Your task to perform on an android device: visit the assistant section in the google photos Image 0: 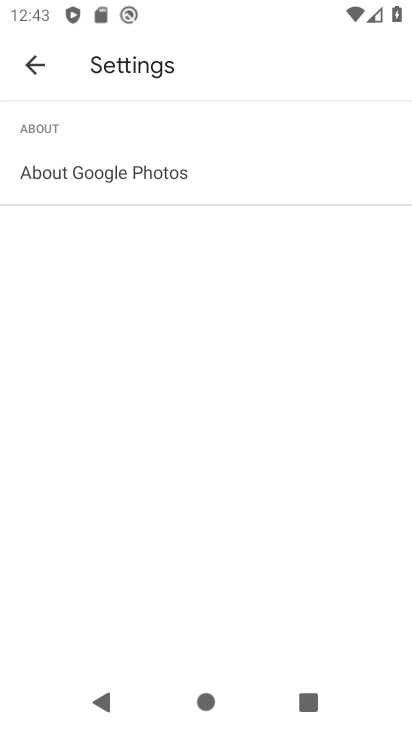
Step 0: press home button
Your task to perform on an android device: visit the assistant section in the google photos Image 1: 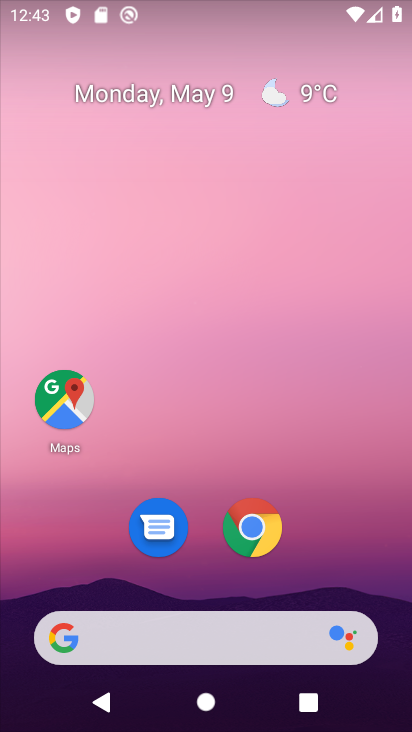
Step 1: drag from (250, 258) to (280, 42)
Your task to perform on an android device: visit the assistant section in the google photos Image 2: 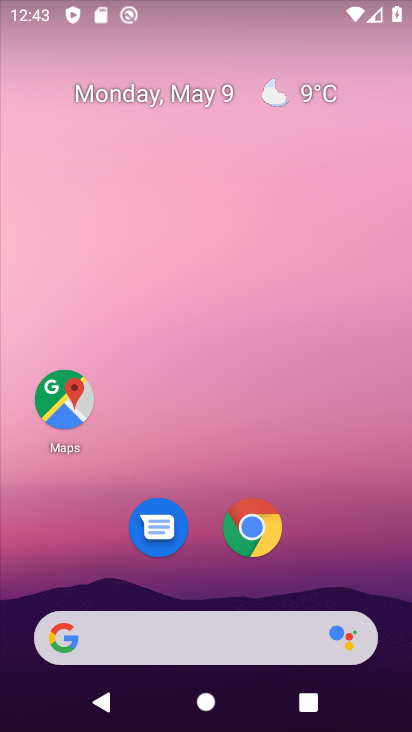
Step 2: drag from (234, 576) to (297, 71)
Your task to perform on an android device: visit the assistant section in the google photos Image 3: 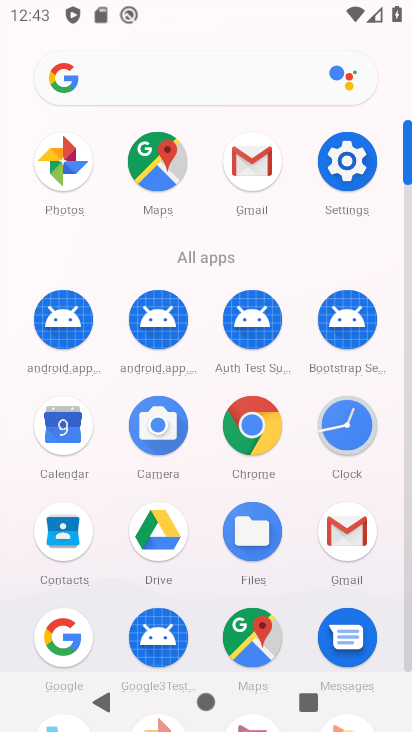
Step 3: drag from (194, 573) to (225, 333)
Your task to perform on an android device: visit the assistant section in the google photos Image 4: 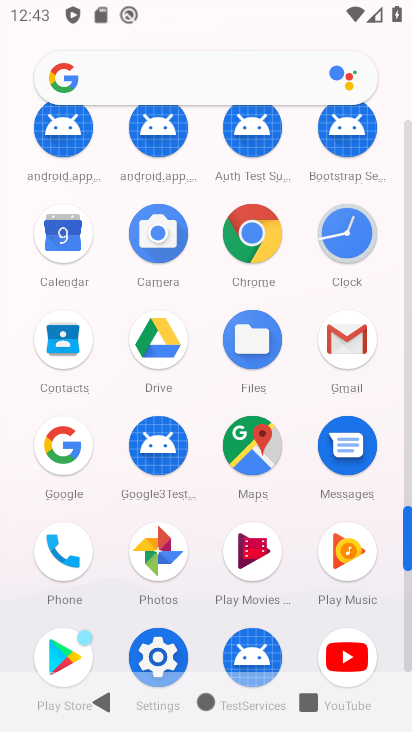
Step 4: click (161, 558)
Your task to perform on an android device: visit the assistant section in the google photos Image 5: 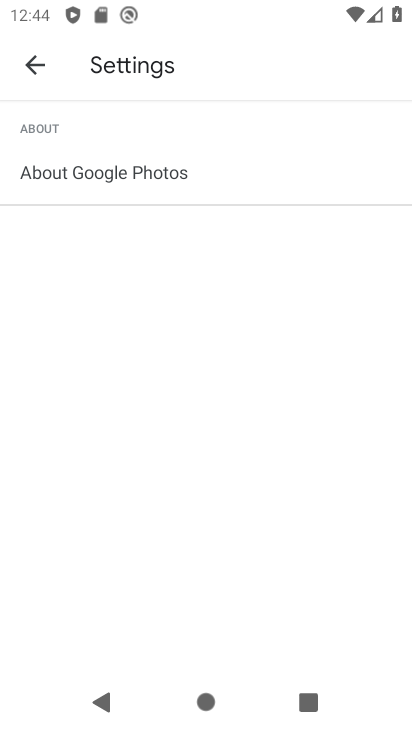
Step 5: click (33, 63)
Your task to perform on an android device: visit the assistant section in the google photos Image 6: 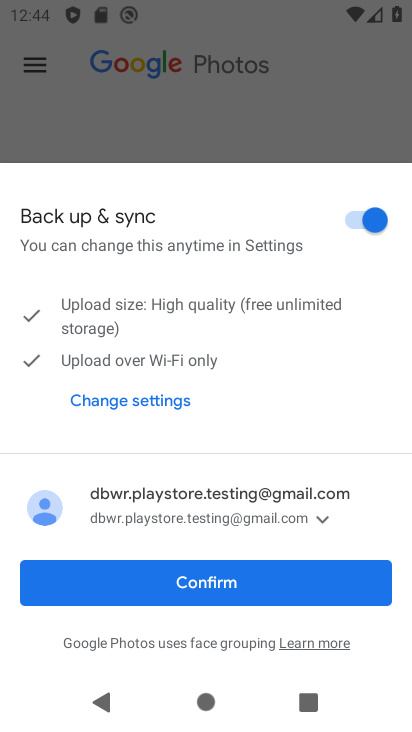
Step 6: click (235, 577)
Your task to perform on an android device: visit the assistant section in the google photos Image 7: 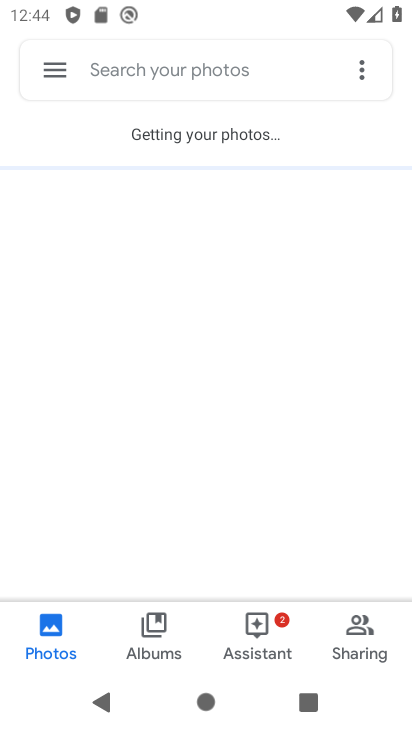
Step 7: click (245, 621)
Your task to perform on an android device: visit the assistant section in the google photos Image 8: 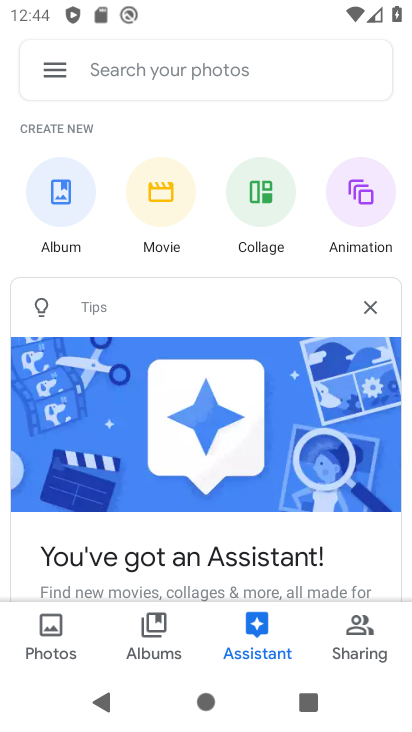
Step 8: task complete